Your task to perform on an android device: stop showing notifications on the lock screen Image 0: 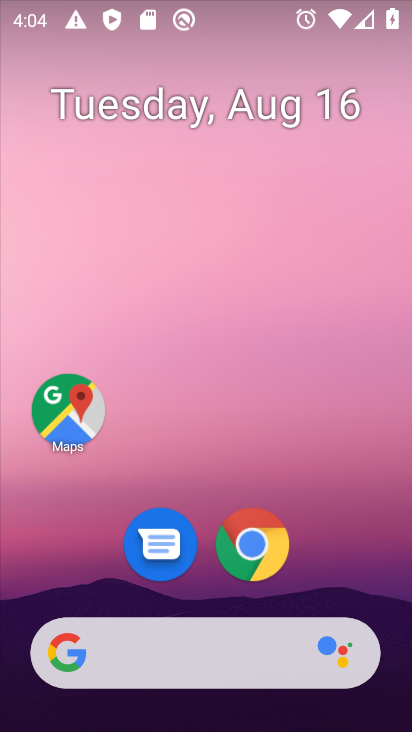
Step 0: drag from (258, 318) to (278, 117)
Your task to perform on an android device: stop showing notifications on the lock screen Image 1: 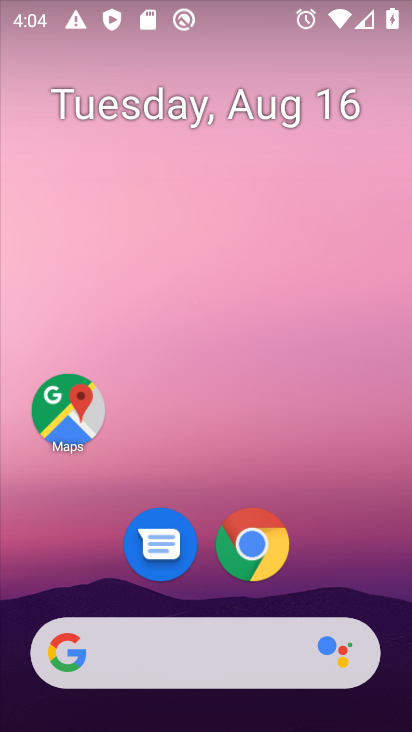
Step 1: drag from (202, 590) to (214, 199)
Your task to perform on an android device: stop showing notifications on the lock screen Image 2: 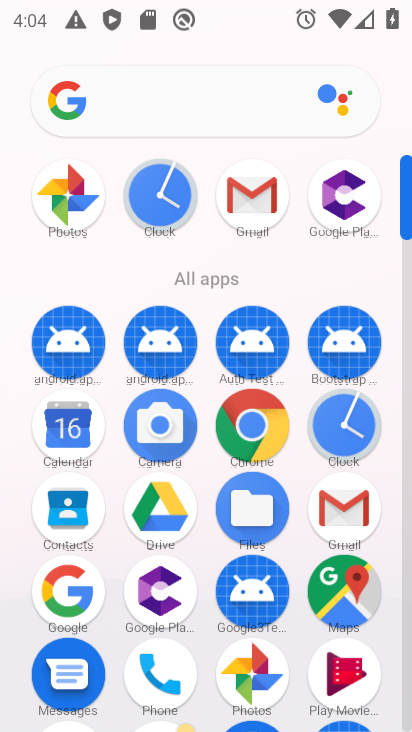
Step 2: drag from (190, 514) to (203, 180)
Your task to perform on an android device: stop showing notifications on the lock screen Image 3: 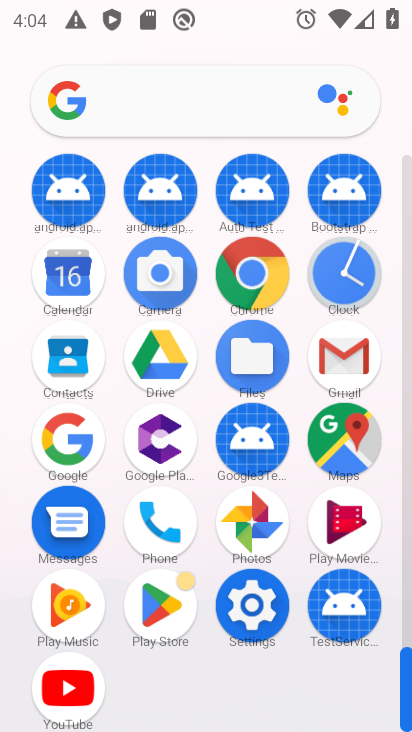
Step 3: click (252, 589)
Your task to perform on an android device: stop showing notifications on the lock screen Image 4: 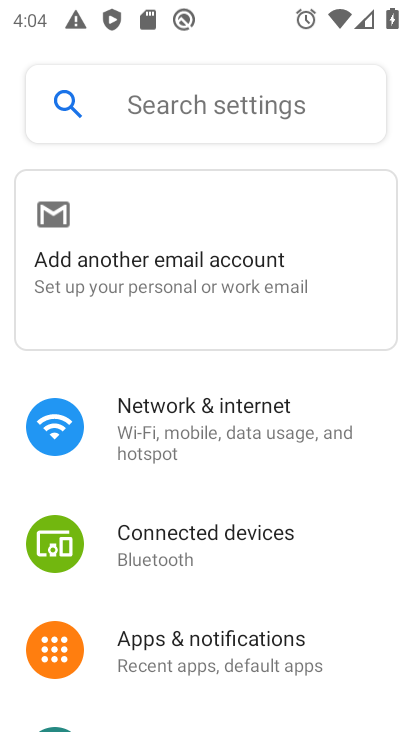
Step 4: drag from (251, 621) to (259, 79)
Your task to perform on an android device: stop showing notifications on the lock screen Image 5: 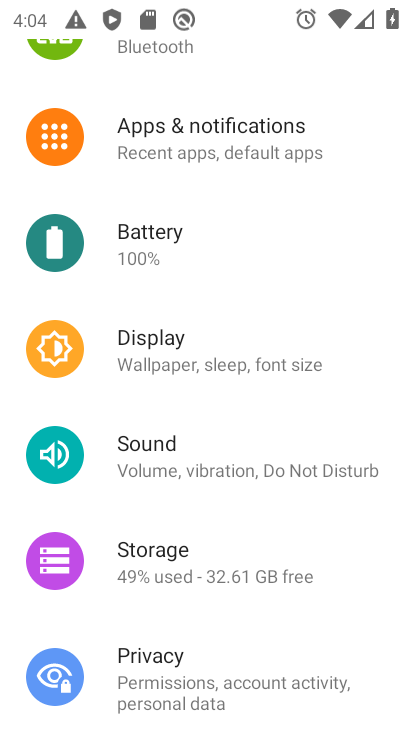
Step 5: click (186, 158)
Your task to perform on an android device: stop showing notifications on the lock screen Image 6: 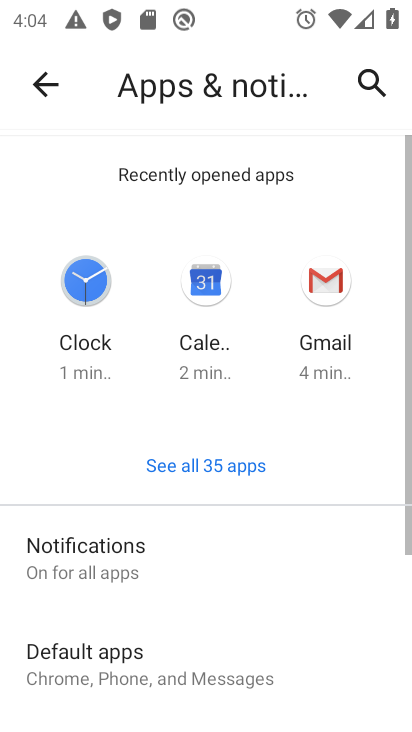
Step 6: click (216, 543)
Your task to perform on an android device: stop showing notifications on the lock screen Image 7: 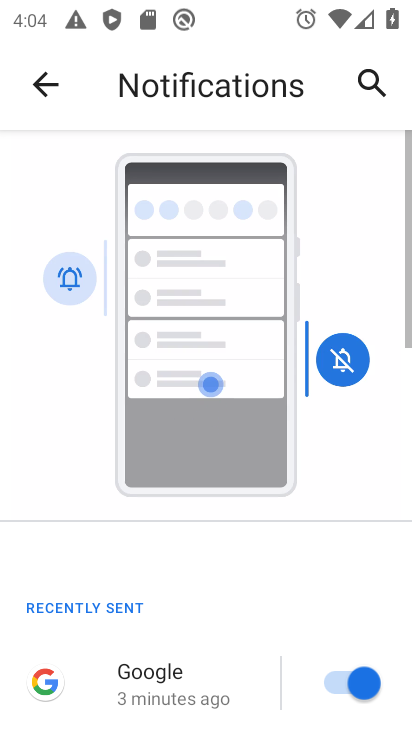
Step 7: drag from (211, 612) to (212, 95)
Your task to perform on an android device: stop showing notifications on the lock screen Image 8: 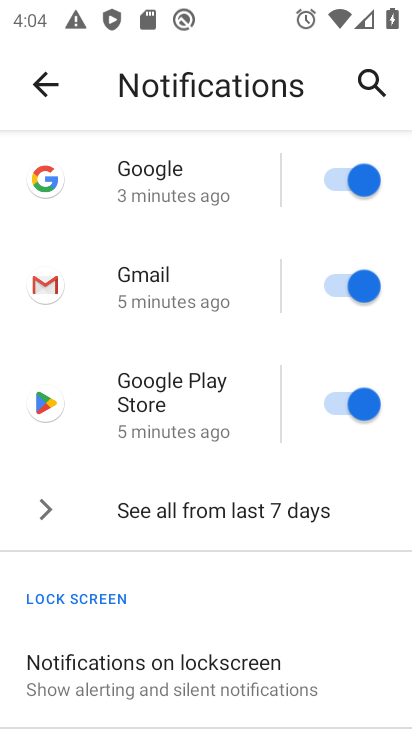
Step 8: click (185, 641)
Your task to perform on an android device: stop showing notifications on the lock screen Image 9: 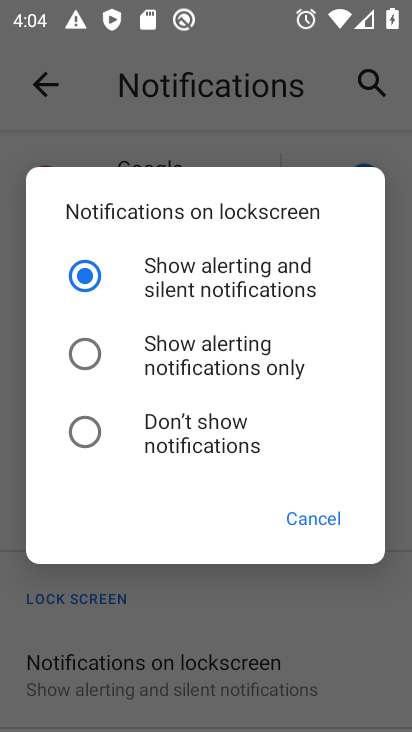
Step 9: click (161, 443)
Your task to perform on an android device: stop showing notifications on the lock screen Image 10: 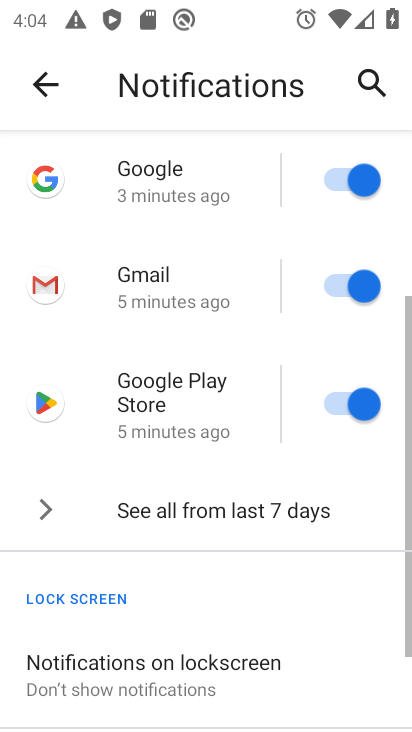
Step 10: task complete